Your task to perform on an android device: Open my contact list Image 0: 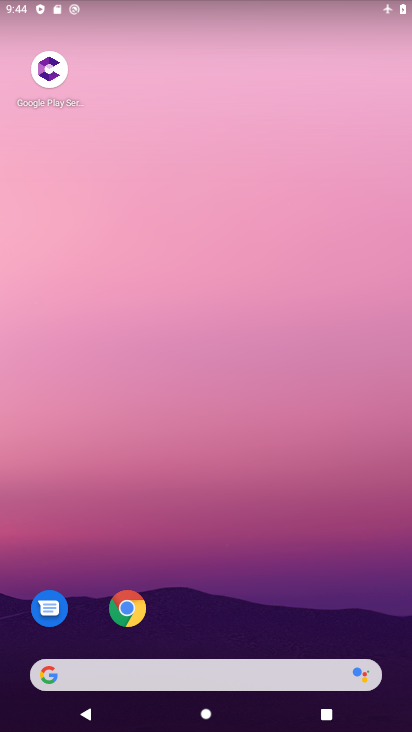
Step 0: drag from (237, 518) to (242, 206)
Your task to perform on an android device: Open my contact list Image 1: 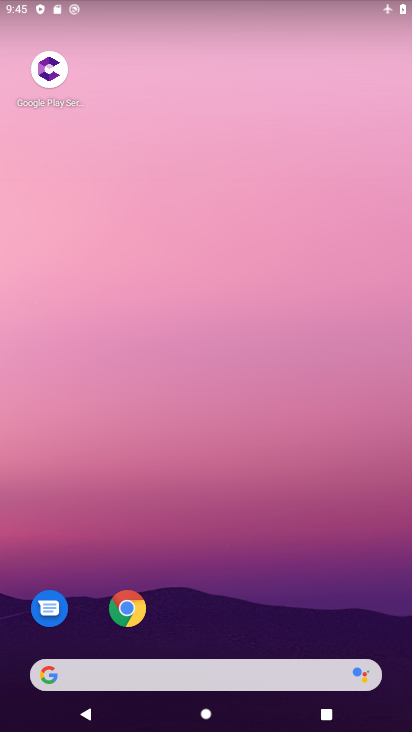
Step 1: drag from (269, 610) to (265, 138)
Your task to perform on an android device: Open my contact list Image 2: 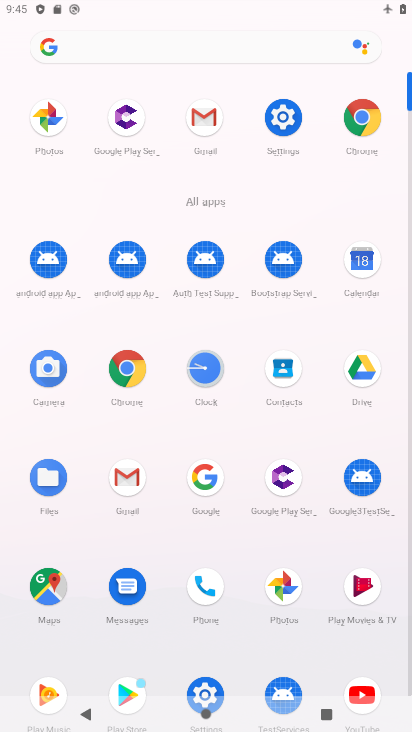
Step 2: click (280, 379)
Your task to perform on an android device: Open my contact list Image 3: 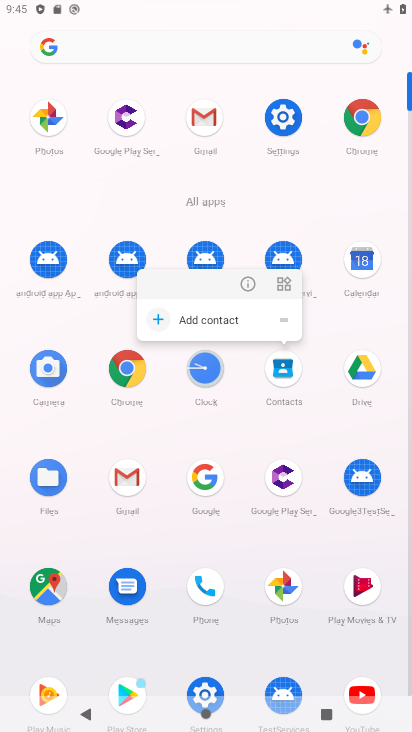
Step 3: click (286, 373)
Your task to perform on an android device: Open my contact list Image 4: 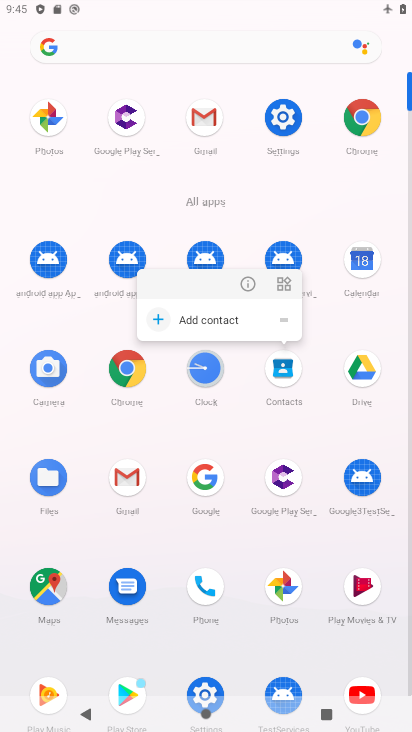
Step 4: click (290, 370)
Your task to perform on an android device: Open my contact list Image 5: 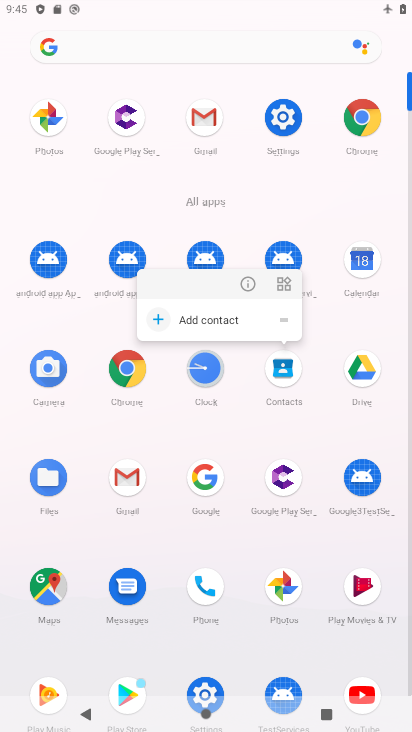
Step 5: click (308, 375)
Your task to perform on an android device: Open my contact list Image 6: 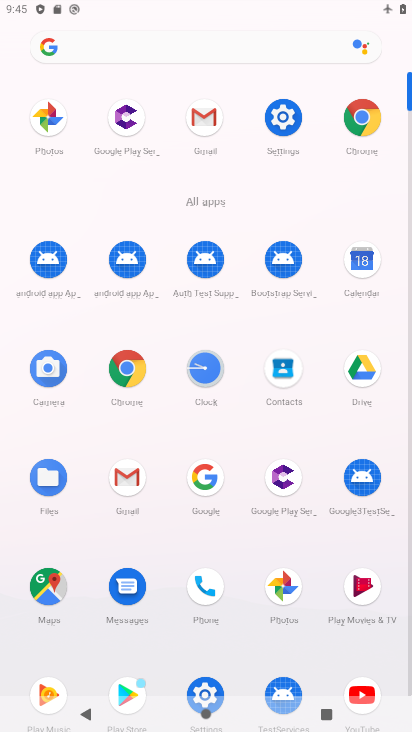
Step 6: click (292, 374)
Your task to perform on an android device: Open my contact list Image 7: 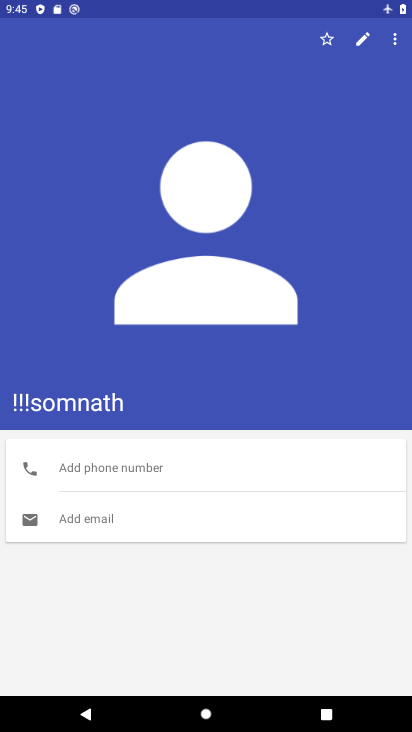
Step 7: click (95, 716)
Your task to perform on an android device: Open my contact list Image 8: 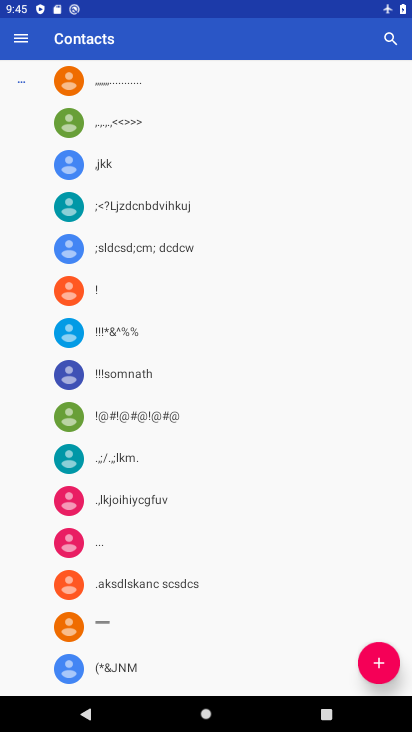
Step 8: task complete